Your task to perform on an android device: star an email in the gmail app Image 0: 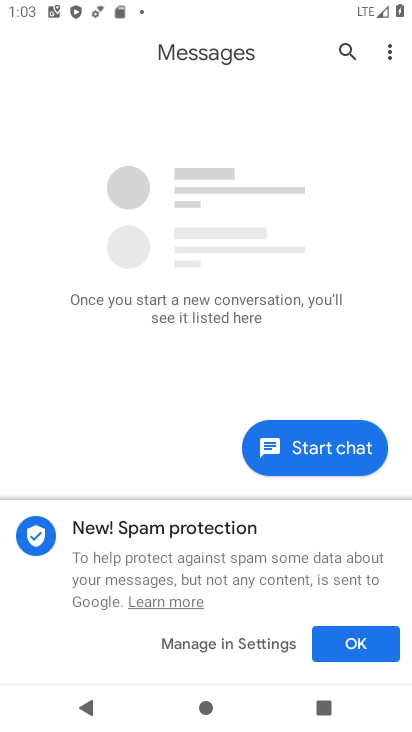
Step 0: press home button
Your task to perform on an android device: star an email in the gmail app Image 1: 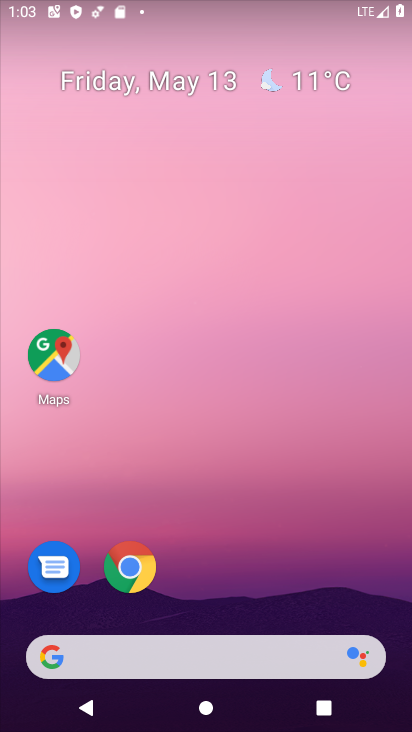
Step 1: drag from (247, 617) to (295, 239)
Your task to perform on an android device: star an email in the gmail app Image 2: 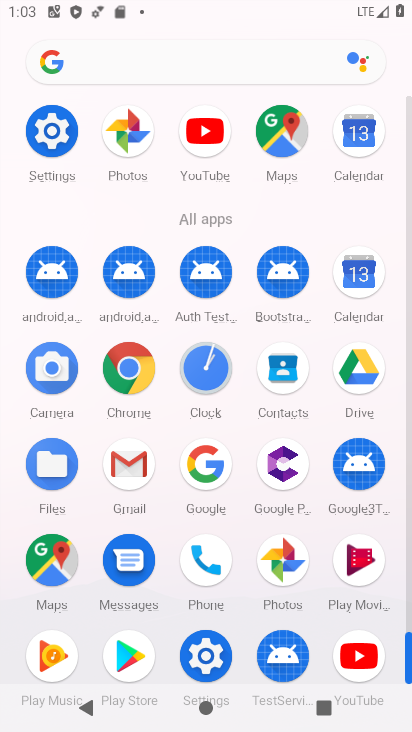
Step 2: click (142, 476)
Your task to perform on an android device: star an email in the gmail app Image 3: 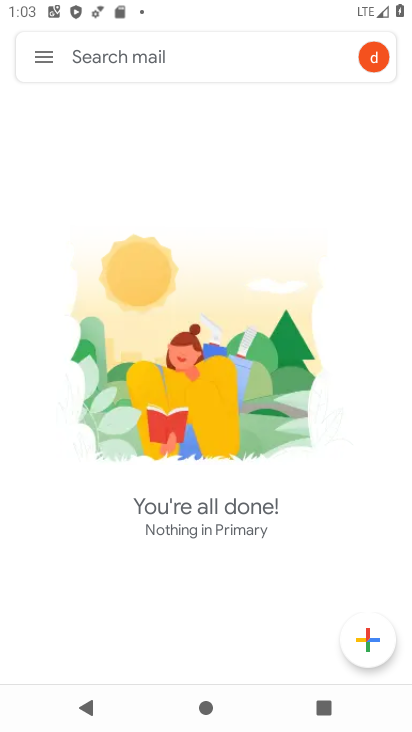
Step 3: click (45, 67)
Your task to perform on an android device: star an email in the gmail app Image 4: 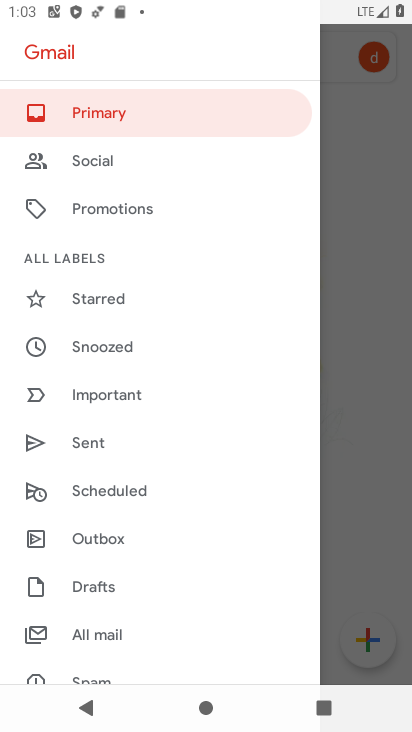
Step 4: click (123, 635)
Your task to perform on an android device: star an email in the gmail app Image 5: 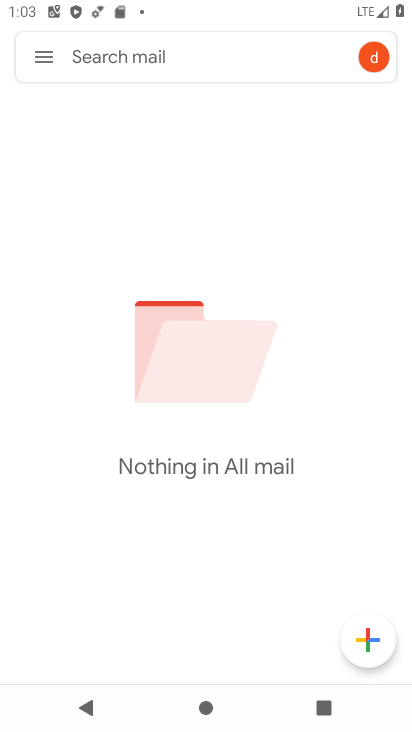
Step 5: task complete